Your task to perform on an android device: Open privacy settings Image 0: 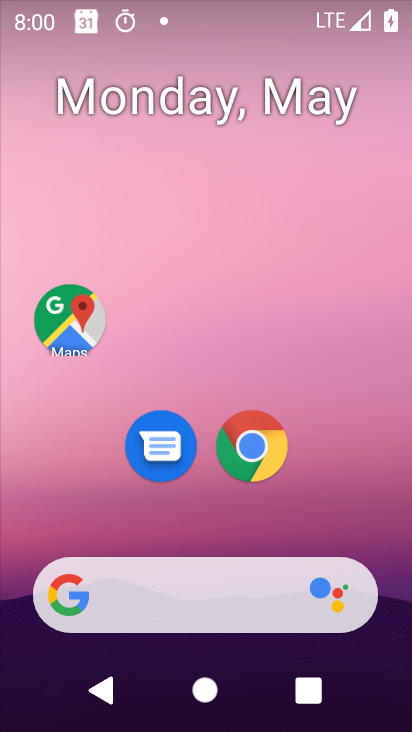
Step 0: press home button
Your task to perform on an android device: Open privacy settings Image 1: 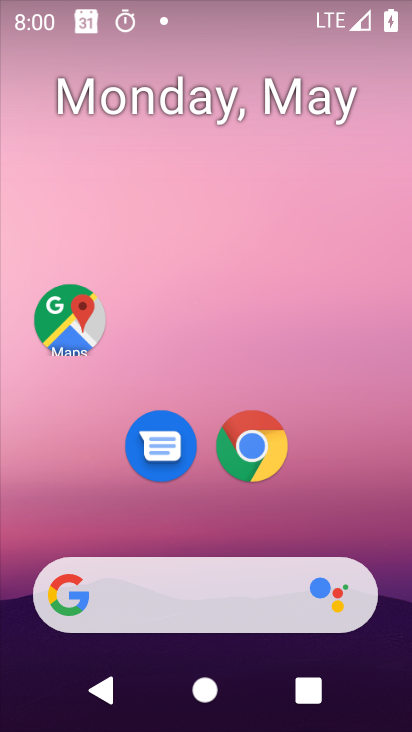
Step 1: drag from (369, 555) to (355, 4)
Your task to perform on an android device: Open privacy settings Image 2: 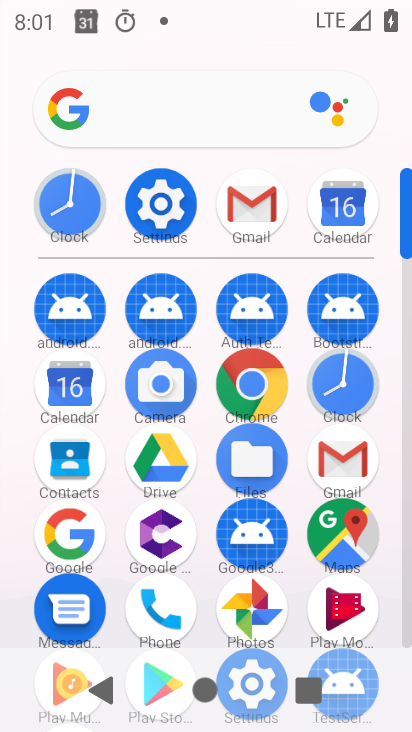
Step 2: click (156, 202)
Your task to perform on an android device: Open privacy settings Image 3: 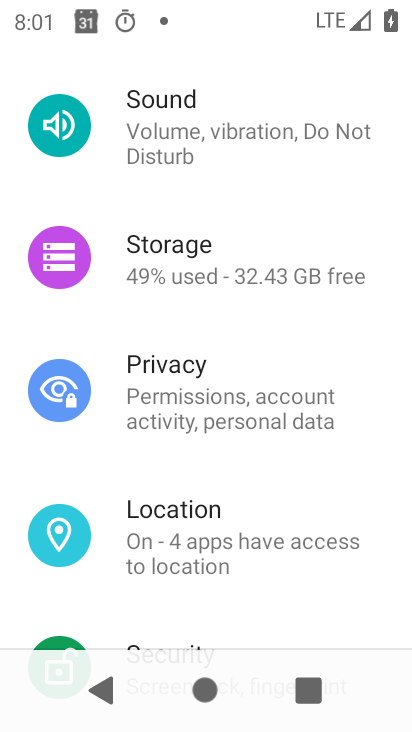
Step 3: click (176, 371)
Your task to perform on an android device: Open privacy settings Image 4: 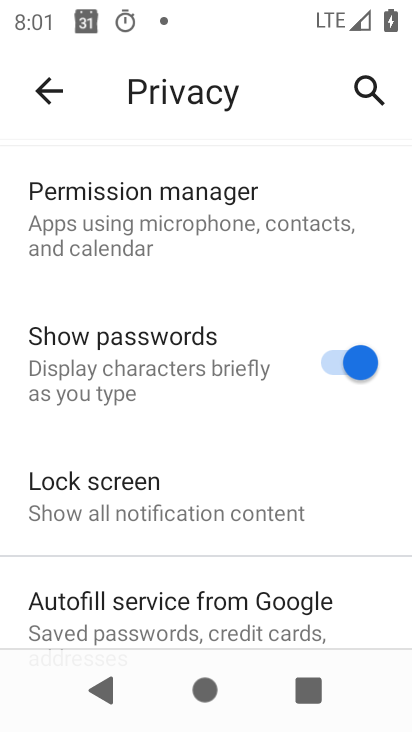
Step 4: task complete